Your task to perform on an android device: toggle data saver in the chrome app Image 0: 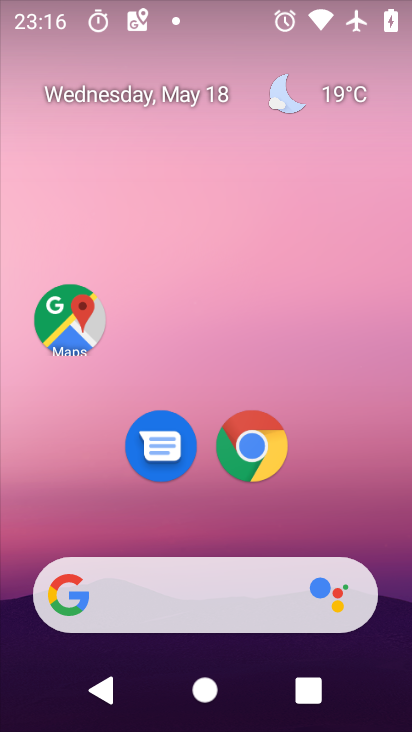
Step 0: press home button
Your task to perform on an android device: toggle data saver in the chrome app Image 1: 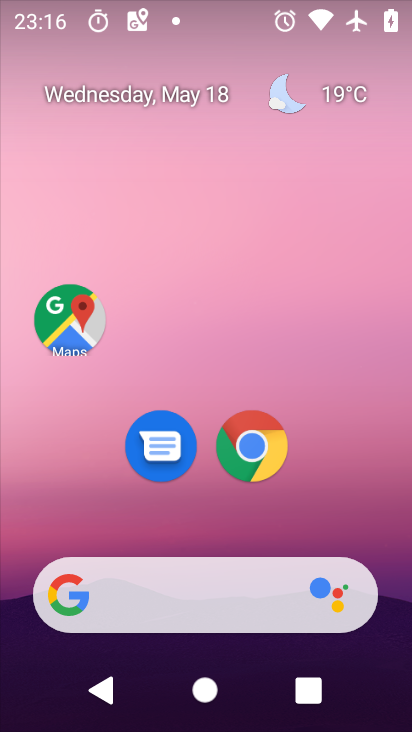
Step 1: click (249, 459)
Your task to perform on an android device: toggle data saver in the chrome app Image 2: 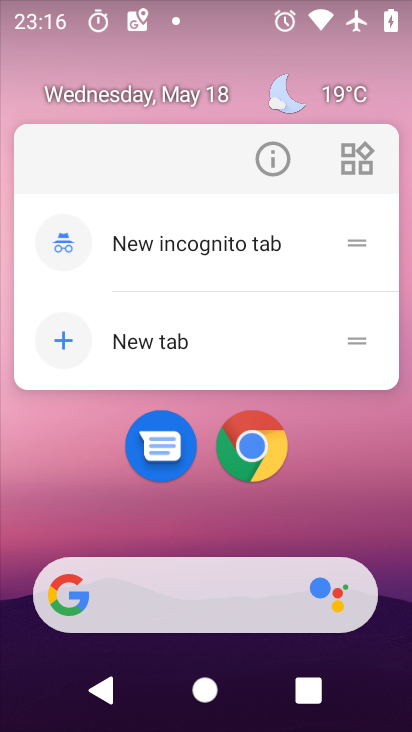
Step 2: click (254, 457)
Your task to perform on an android device: toggle data saver in the chrome app Image 3: 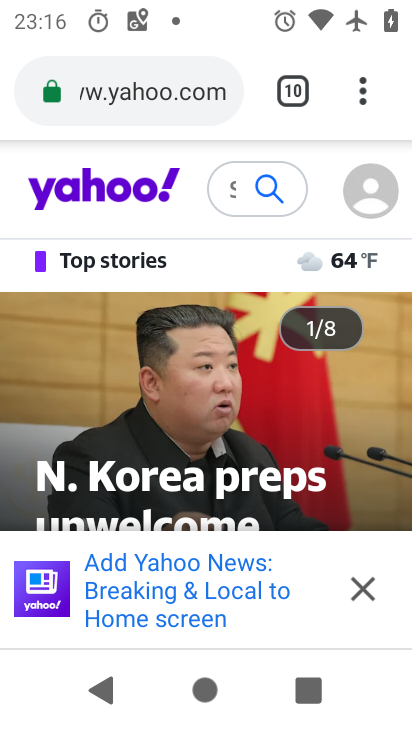
Step 3: drag from (365, 107) to (267, 476)
Your task to perform on an android device: toggle data saver in the chrome app Image 4: 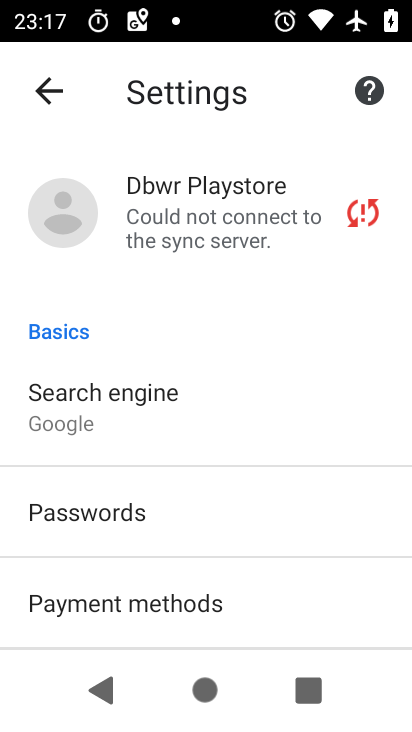
Step 4: drag from (271, 601) to (409, 301)
Your task to perform on an android device: toggle data saver in the chrome app Image 5: 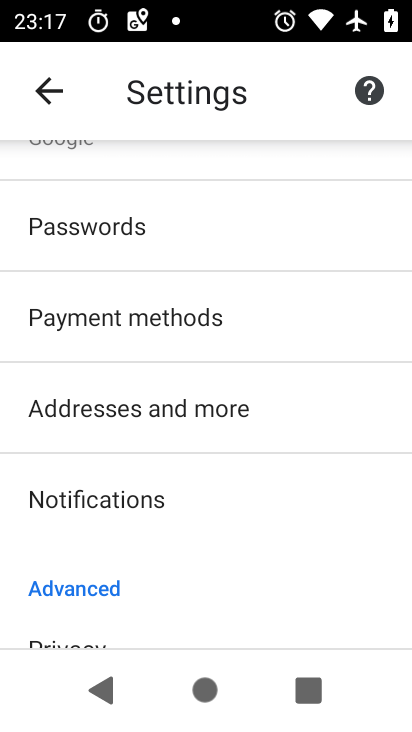
Step 5: drag from (232, 562) to (405, 137)
Your task to perform on an android device: toggle data saver in the chrome app Image 6: 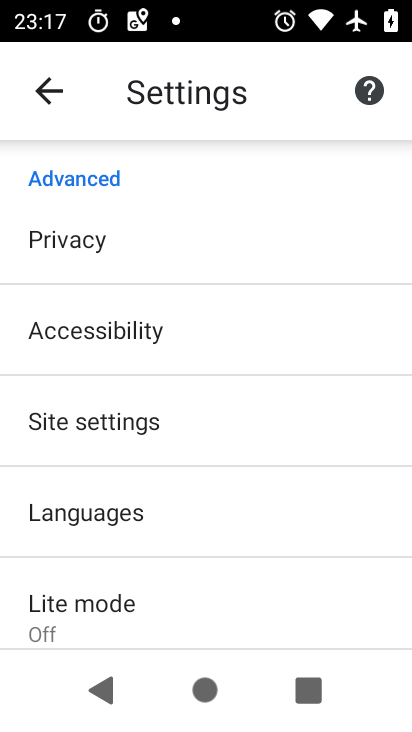
Step 6: click (78, 597)
Your task to perform on an android device: toggle data saver in the chrome app Image 7: 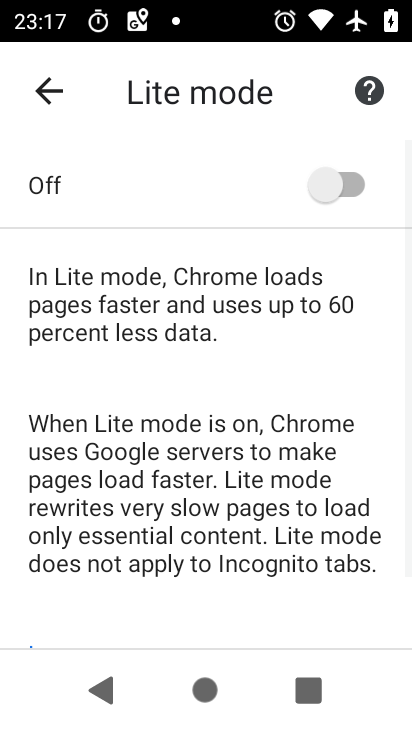
Step 7: click (345, 181)
Your task to perform on an android device: toggle data saver in the chrome app Image 8: 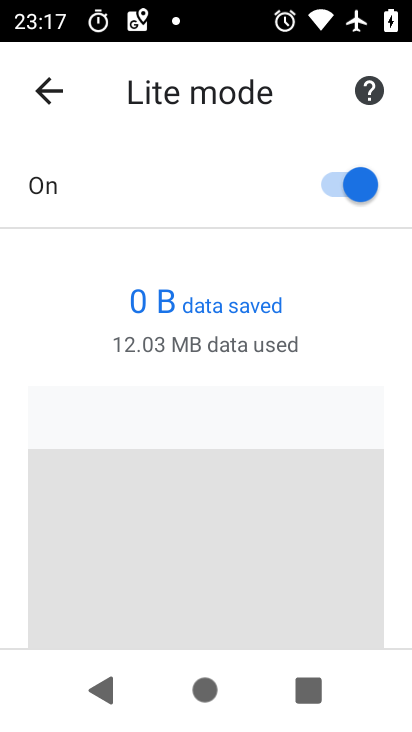
Step 8: task complete